Your task to perform on an android device: Go to battery settings Image 0: 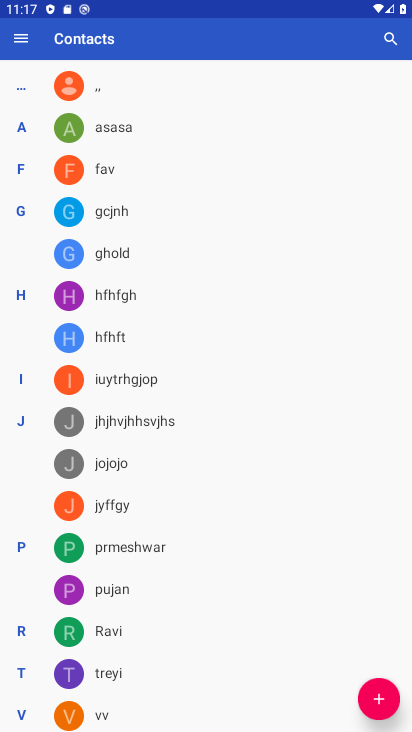
Step 0: drag from (226, 621) to (267, 304)
Your task to perform on an android device: Go to battery settings Image 1: 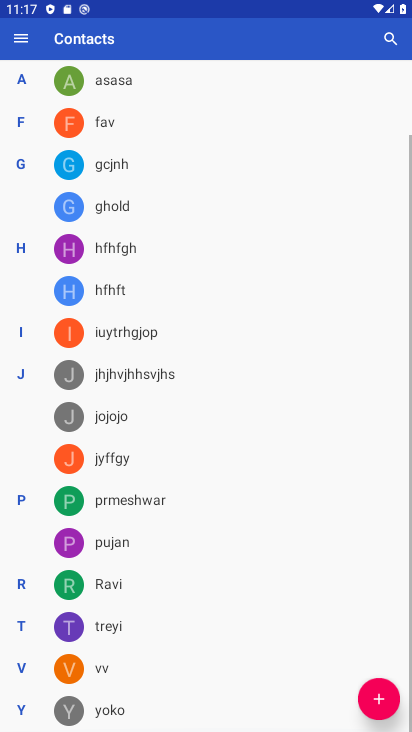
Step 1: drag from (248, 223) to (237, 719)
Your task to perform on an android device: Go to battery settings Image 2: 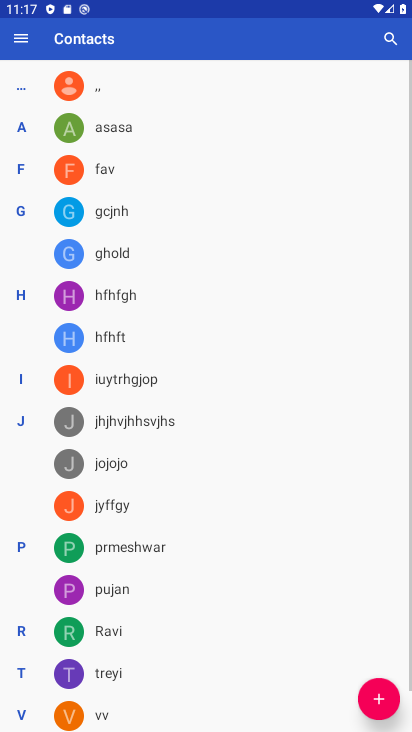
Step 2: press home button
Your task to perform on an android device: Go to battery settings Image 3: 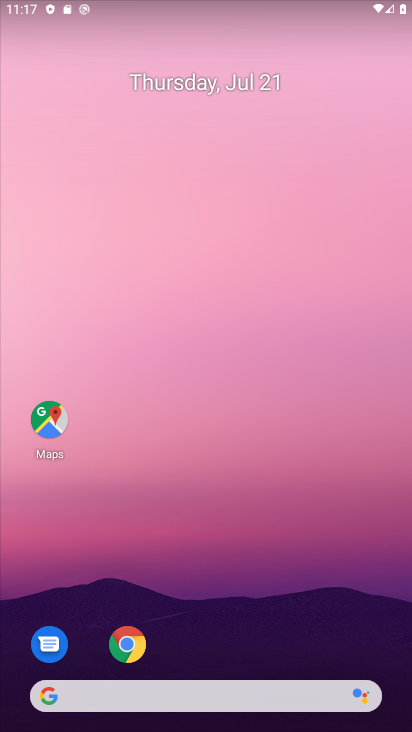
Step 3: drag from (173, 637) to (236, 124)
Your task to perform on an android device: Go to battery settings Image 4: 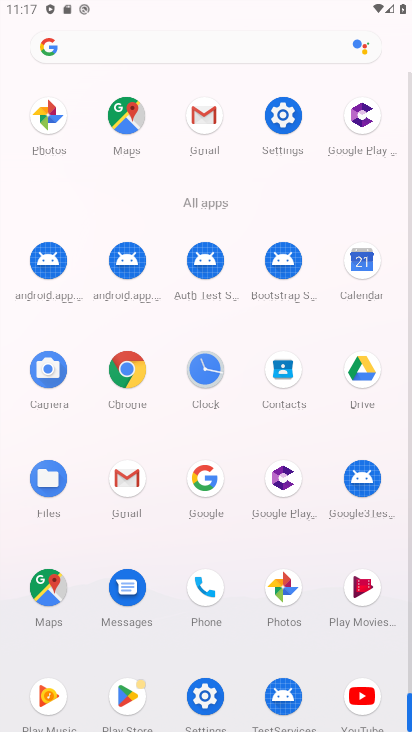
Step 4: click (205, 685)
Your task to perform on an android device: Go to battery settings Image 5: 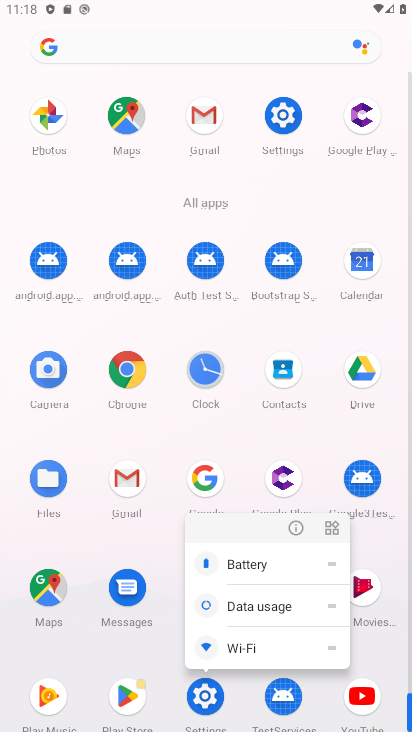
Step 5: click (295, 517)
Your task to perform on an android device: Go to battery settings Image 6: 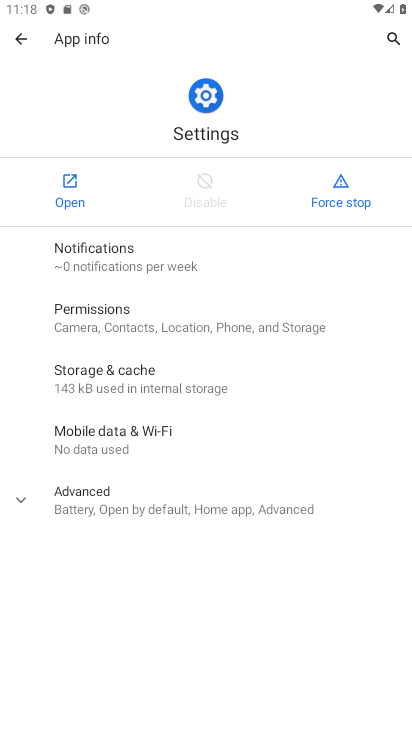
Step 6: click (58, 185)
Your task to perform on an android device: Go to battery settings Image 7: 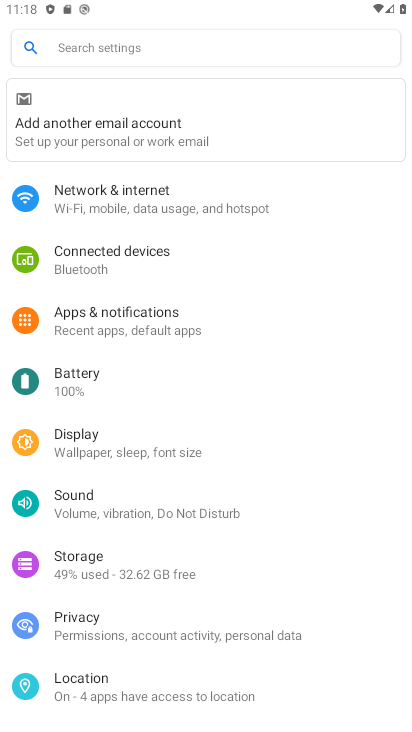
Step 7: click (118, 371)
Your task to perform on an android device: Go to battery settings Image 8: 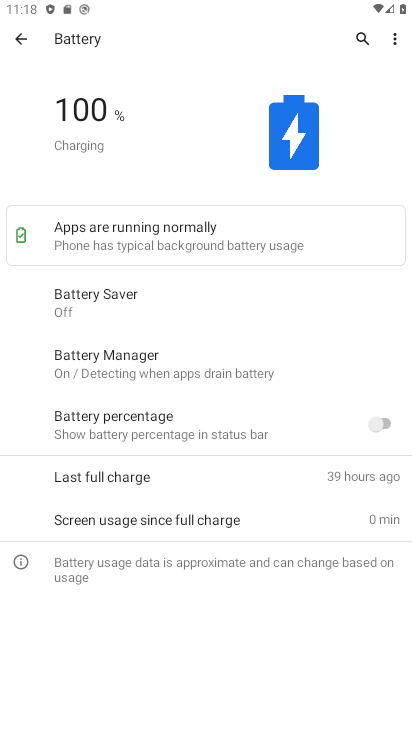
Step 8: task complete